Your task to perform on an android device: Is it going to rain today? Image 0: 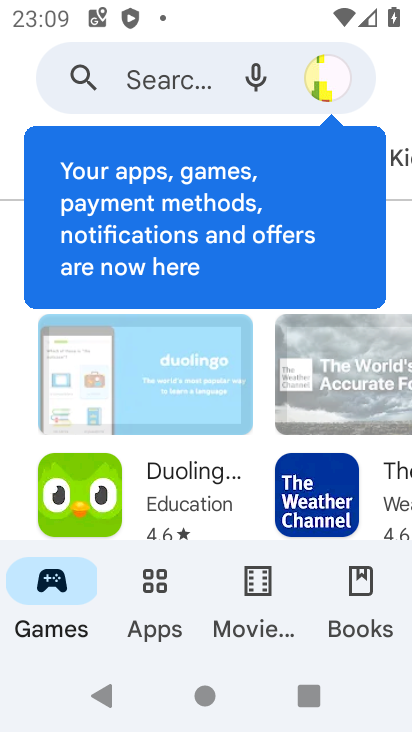
Step 0: press home button
Your task to perform on an android device: Is it going to rain today? Image 1: 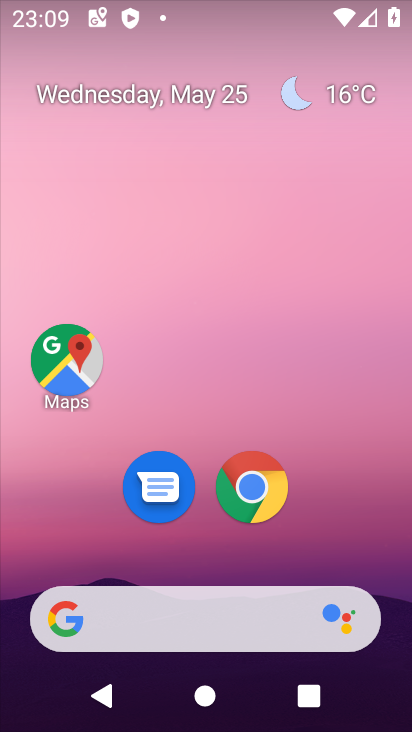
Step 1: click (251, 628)
Your task to perform on an android device: Is it going to rain today? Image 2: 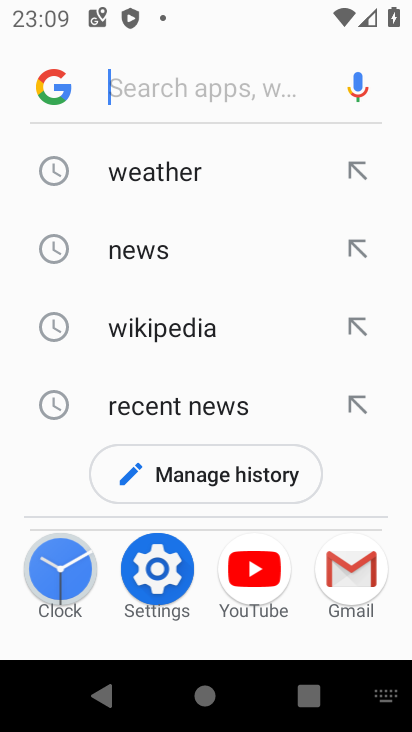
Step 2: type "Is it going to rain today?"
Your task to perform on an android device: Is it going to rain today? Image 3: 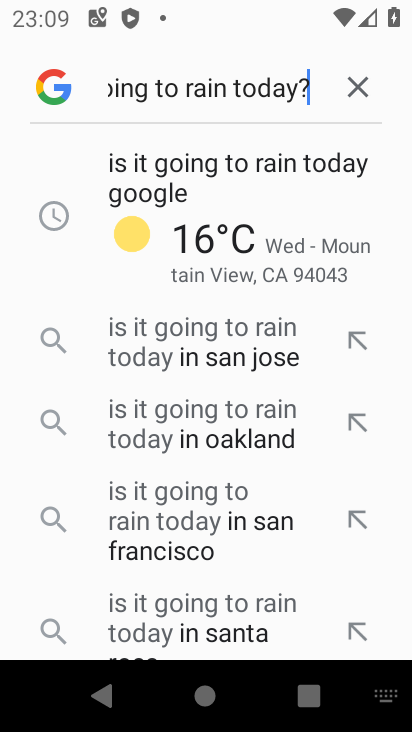
Step 3: click (318, 252)
Your task to perform on an android device: Is it going to rain today? Image 4: 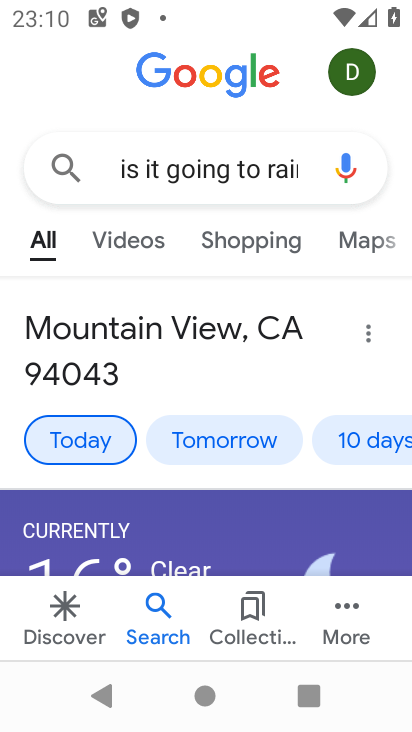
Step 4: task complete